Your task to perform on an android device: find which apps use the phone's location Image 0: 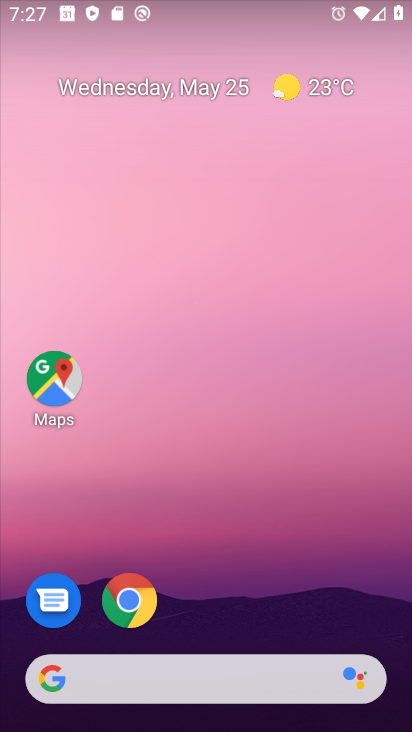
Step 0: drag from (271, 617) to (246, 97)
Your task to perform on an android device: find which apps use the phone's location Image 1: 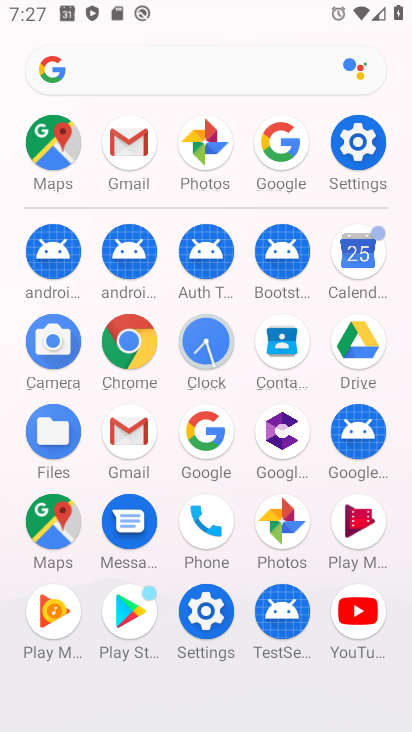
Step 1: click (360, 142)
Your task to perform on an android device: find which apps use the phone's location Image 2: 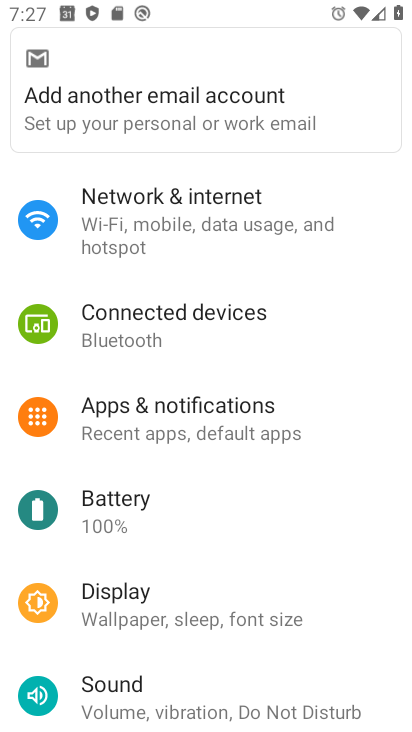
Step 2: drag from (171, 483) to (239, 391)
Your task to perform on an android device: find which apps use the phone's location Image 3: 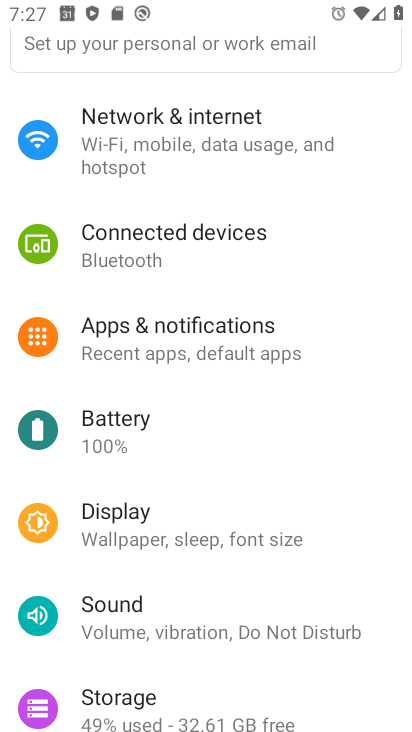
Step 3: drag from (182, 464) to (275, 344)
Your task to perform on an android device: find which apps use the phone's location Image 4: 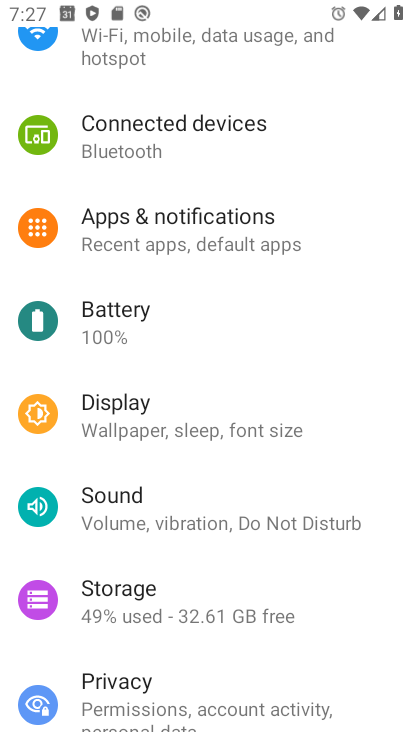
Step 4: drag from (201, 453) to (277, 355)
Your task to perform on an android device: find which apps use the phone's location Image 5: 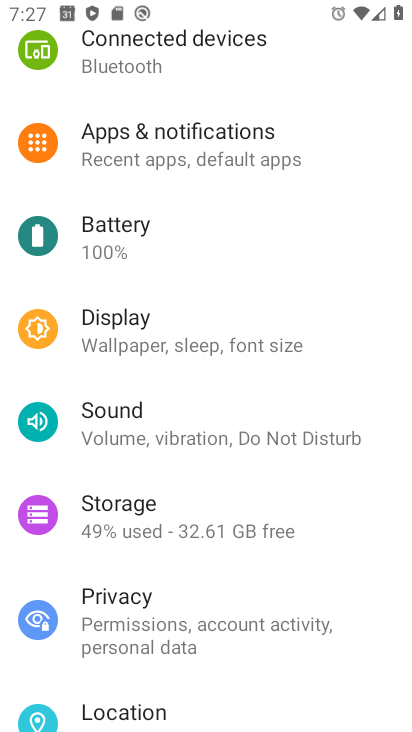
Step 5: drag from (177, 485) to (265, 386)
Your task to perform on an android device: find which apps use the phone's location Image 6: 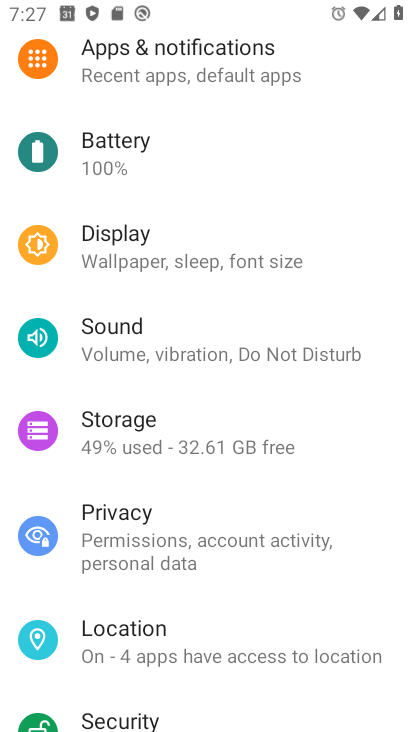
Step 6: drag from (208, 577) to (282, 465)
Your task to perform on an android device: find which apps use the phone's location Image 7: 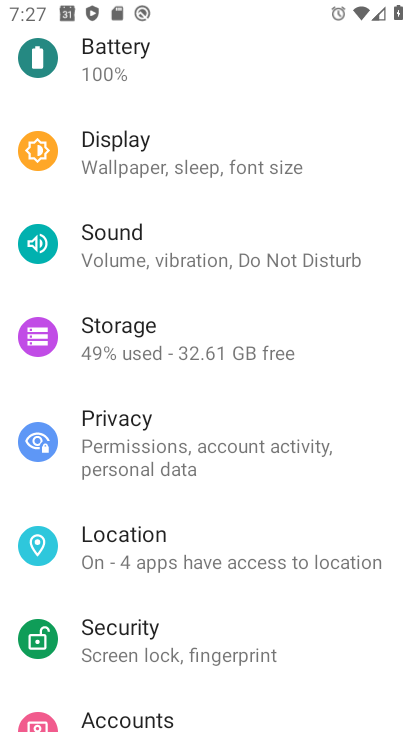
Step 7: click (183, 558)
Your task to perform on an android device: find which apps use the phone's location Image 8: 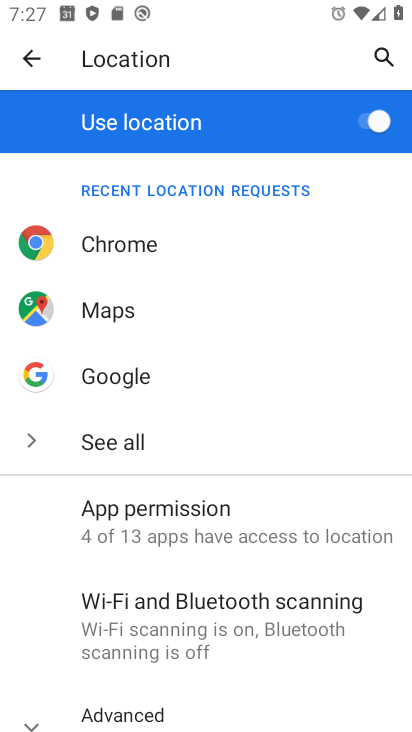
Step 8: click (175, 510)
Your task to perform on an android device: find which apps use the phone's location Image 9: 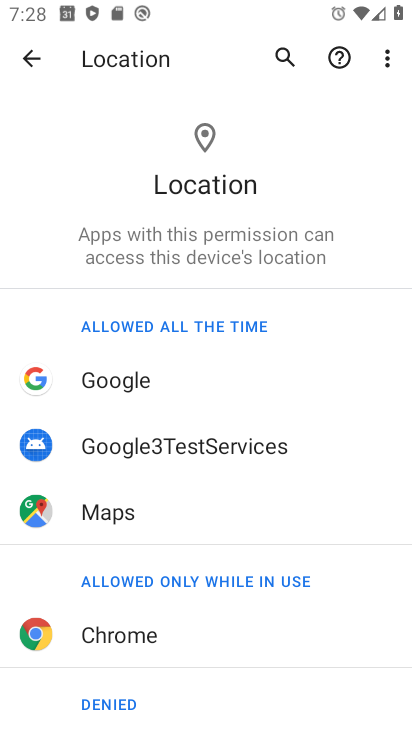
Step 9: click (116, 526)
Your task to perform on an android device: find which apps use the phone's location Image 10: 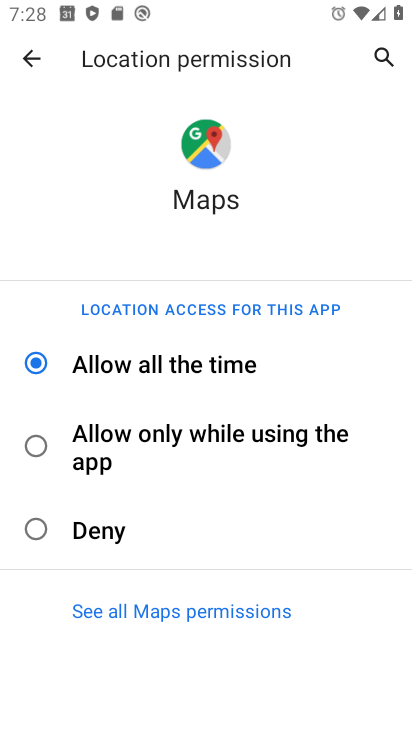
Step 10: task complete